Your task to perform on an android device: move an email to a new category in the gmail app Image 0: 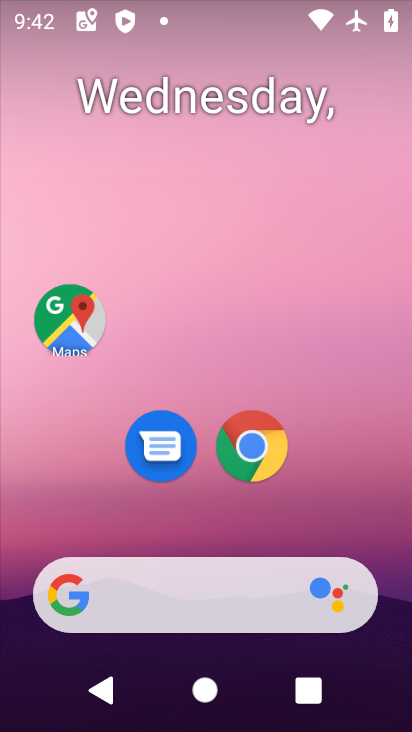
Step 0: press home button
Your task to perform on an android device: move an email to a new category in the gmail app Image 1: 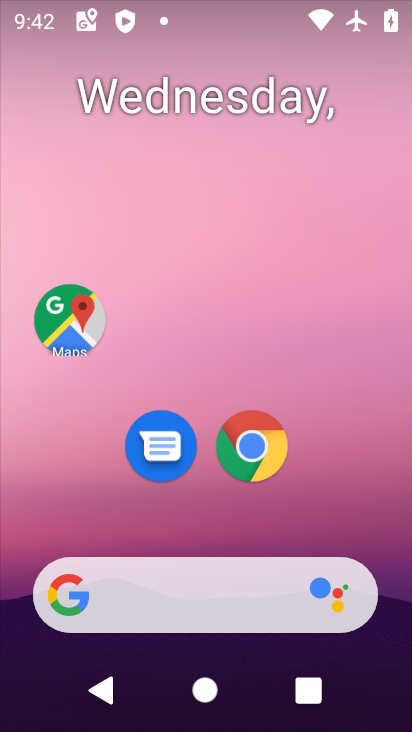
Step 1: drag from (193, 592) to (357, 53)
Your task to perform on an android device: move an email to a new category in the gmail app Image 2: 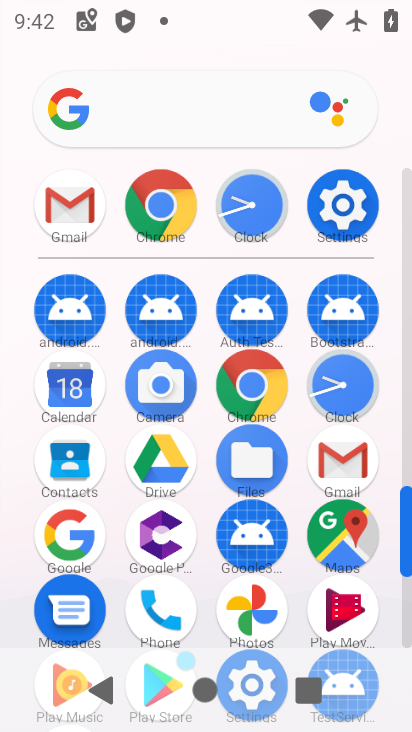
Step 2: click (60, 213)
Your task to perform on an android device: move an email to a new category in the gmail app Image 3: 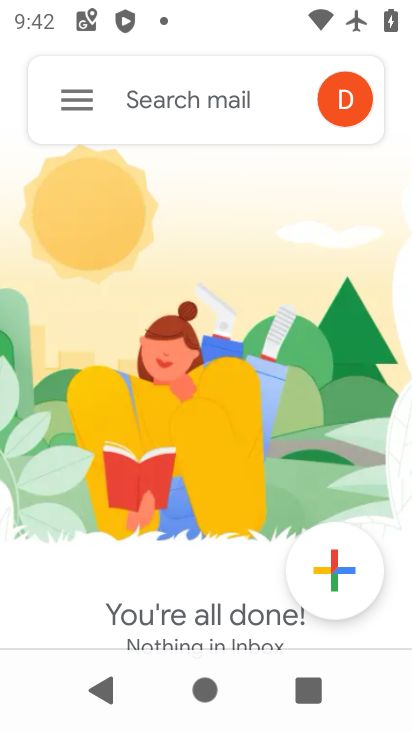
Step 3: task complete